Your task to perform on an android device: How big is a dinosaur? Image 0: 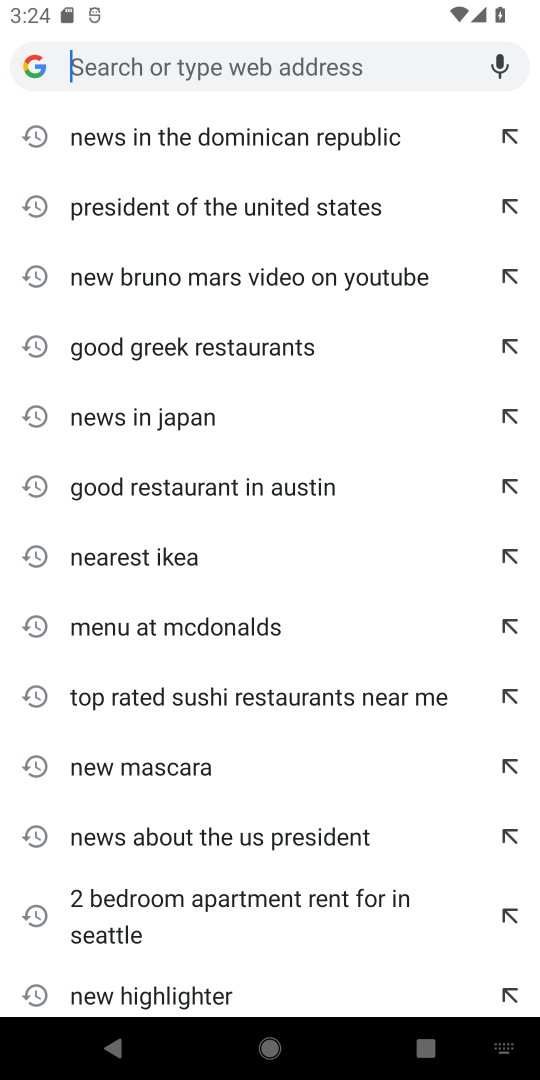
Step 0: type "How big is a dinosaur?"
Your task to perform on an android device: How big is a dinosaur? Image 1: 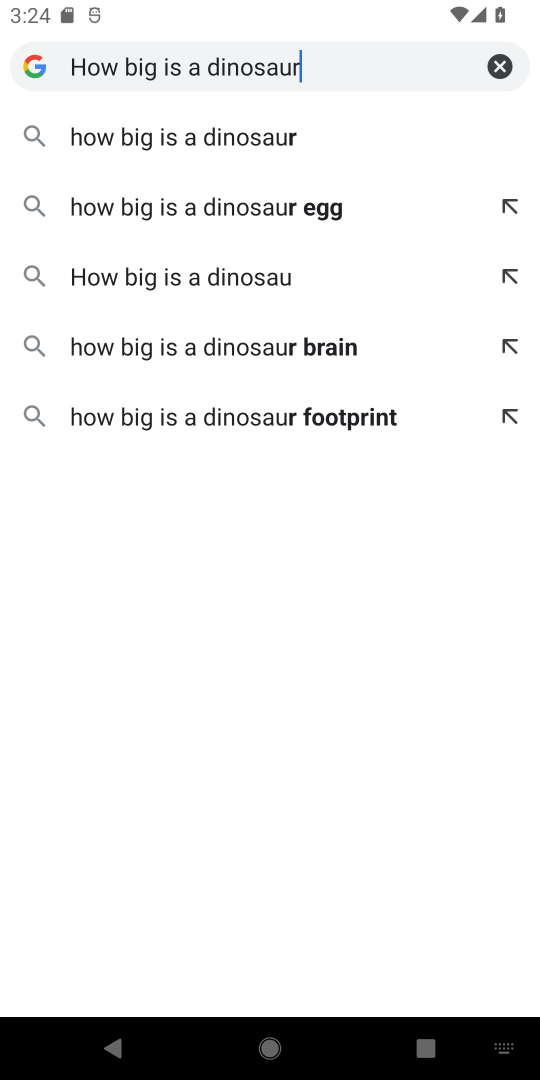
Step 1: type ""
Your task to perform on an android device: How big is a dinosaur? Image 2: 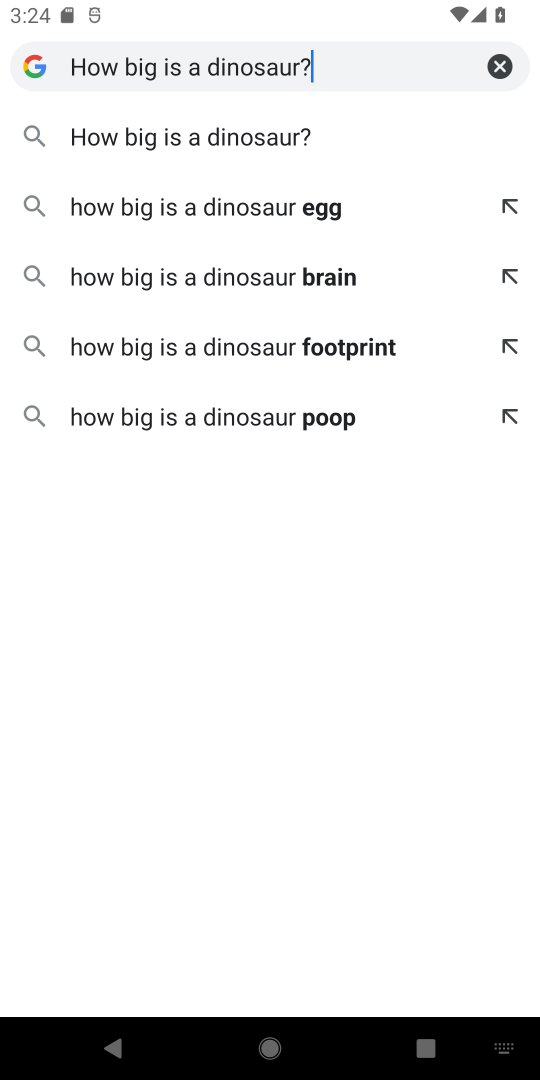
Step 2: click (331, 131)
Your task to perform on an android device: How big is a dinosaur? Image 3: 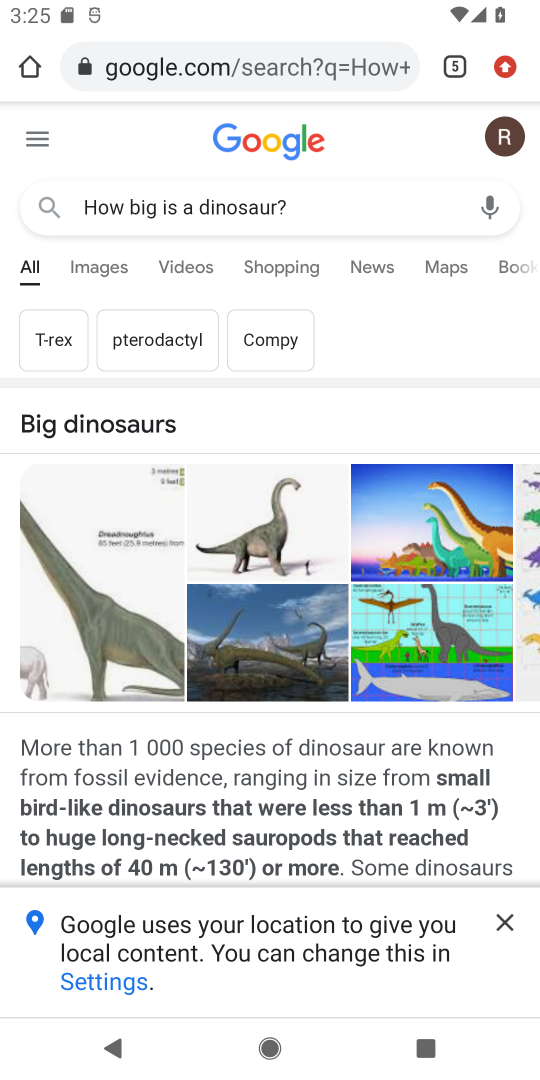
Step 3: task complete